Your task to perform on an android device: check out phone information Image 0: 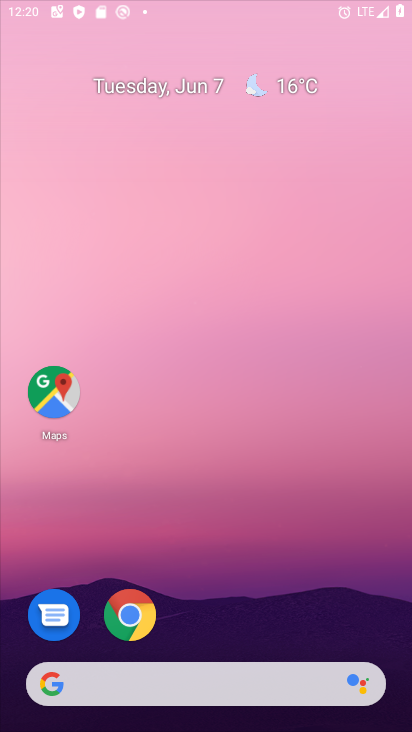
Step 0: press home button
Your task to perform on an android device: check out phone information Image 1: 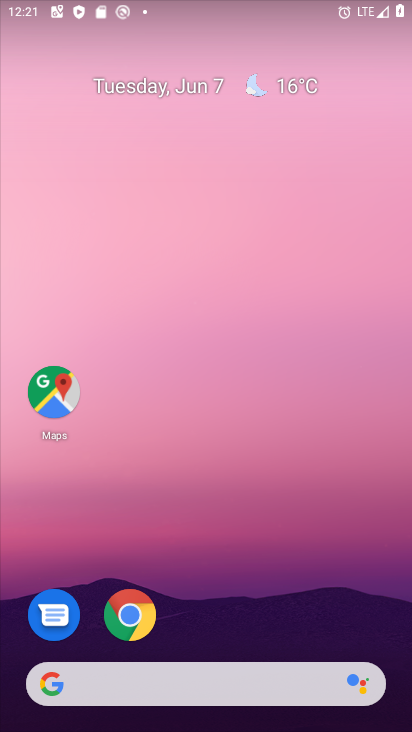
Step 1: drag from (235, 642) to (270, 115)
Your task to perform on an android device: check out phone information Image 2: 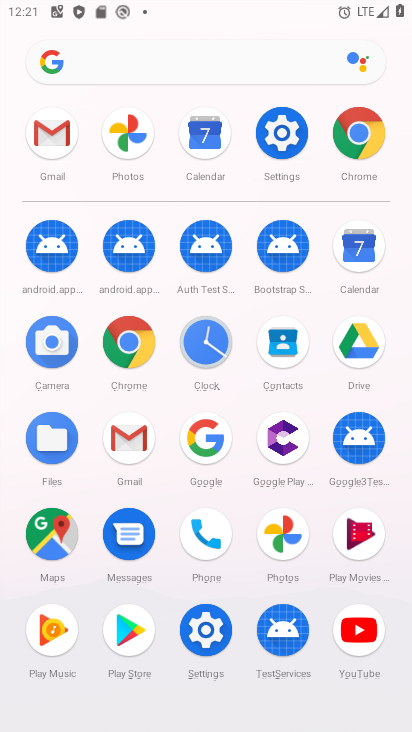
Step 2: click (205, 621)
Your task to perform on an android device: check out phone information Image 3: 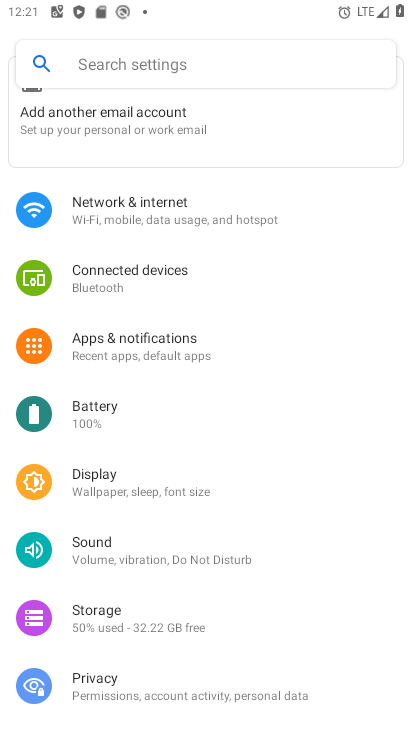
Step 3: drag from (195, 684) to (204, 220)
Your task to perform on an android device: check out phone information Image 4: 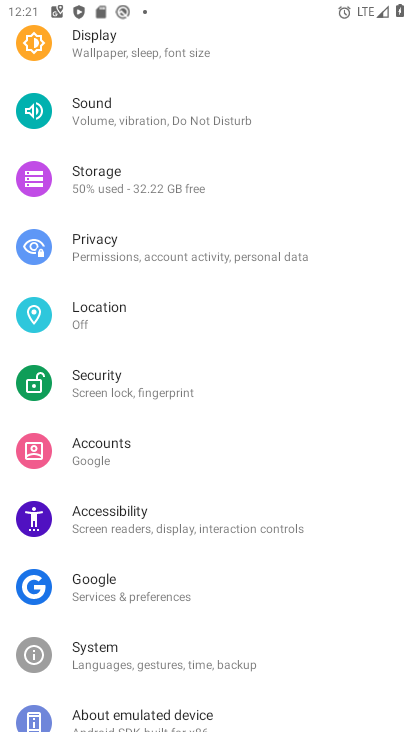
Step 4: drag from (149, 668) to (168, 292)
Your task to perform on an android device: check out phone information Image 5: 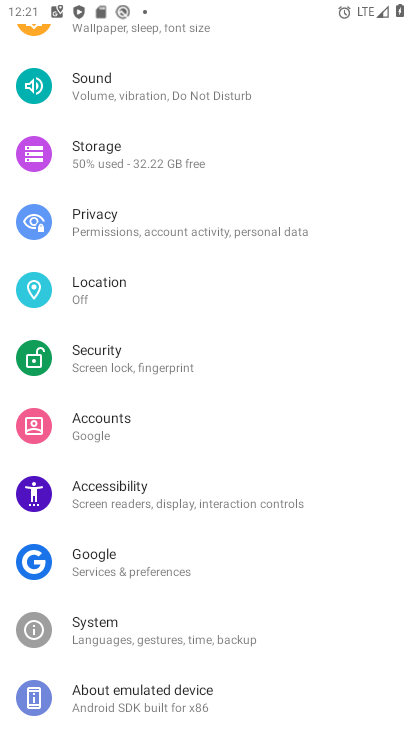
Step 5: click (187, 697)
Your task to perform on an android device: check out phone information Image 6: 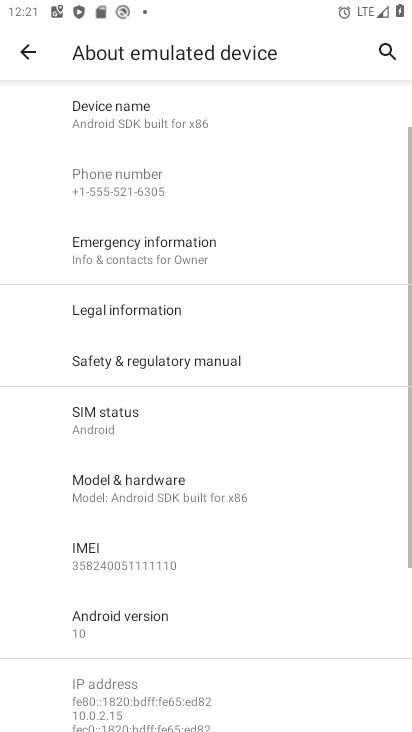
Step 6: task complete